Your task to perform on an android device: Search for Mexican restaurants on Maps Image 0: 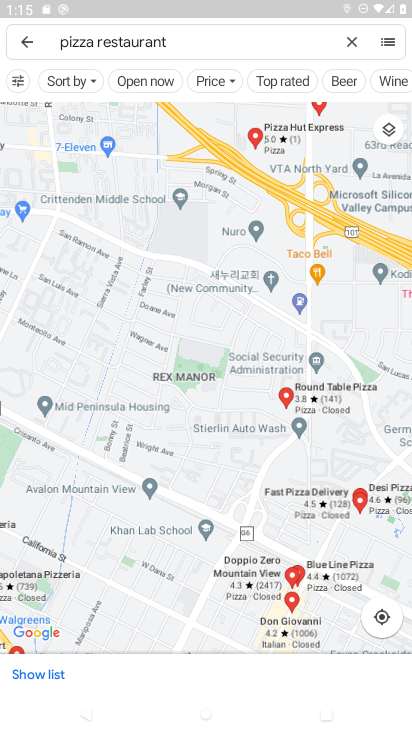
Step 0: click (344, 41)
Your task to perform on an android device: Search for Mexican restaurants on Maps Image 1: 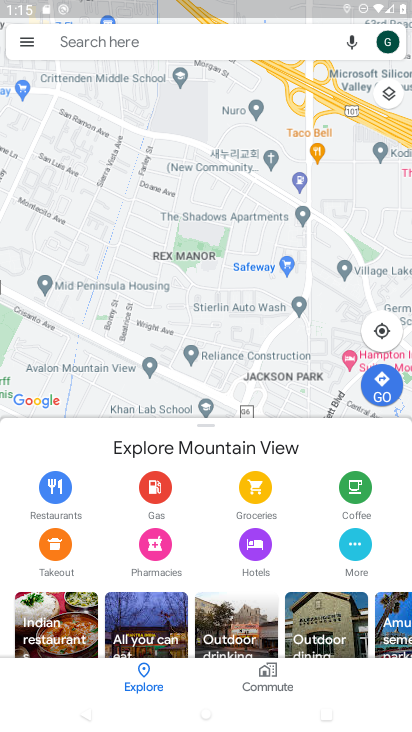
Step 1: type "mexican "
Your task to perform on an android device: Search for Mexican restaurants on Maps Image 2: 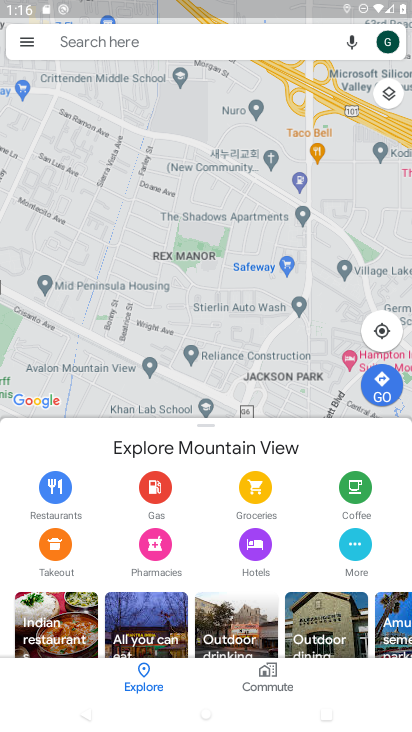
Step 2: click (219, 48)
Your task to perform on an android device: Search for Mexican restaurants on Maps Image 3: 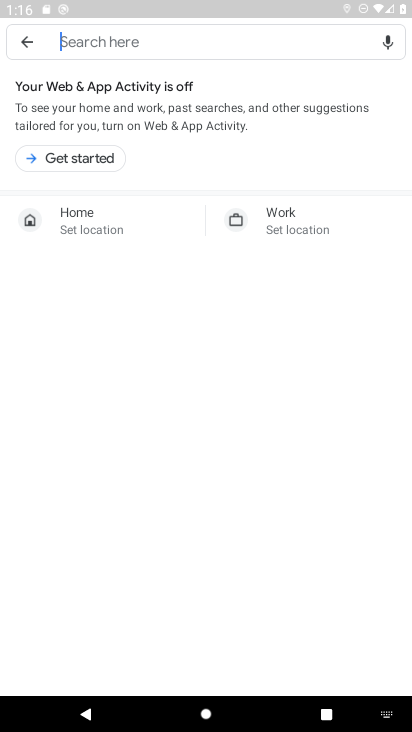
Step 3: type "mexican"
Your task to perform on an android device: Search for Mexican restaurants on Maps Image 4: 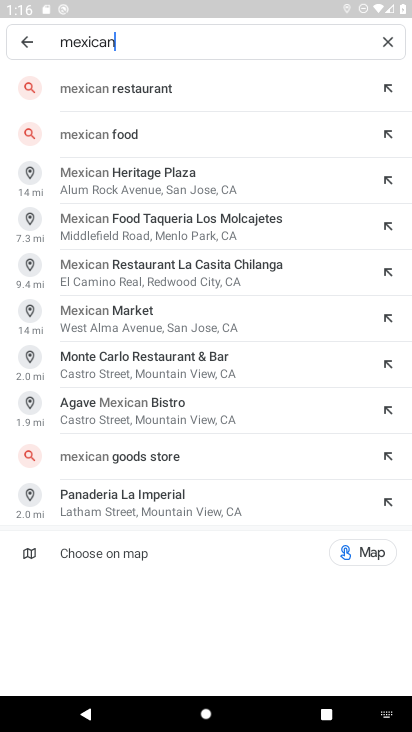
Step 4: click (222, 79)
Your task to perform on an android device: Search for Mexican restaurants on Maps Image 5: 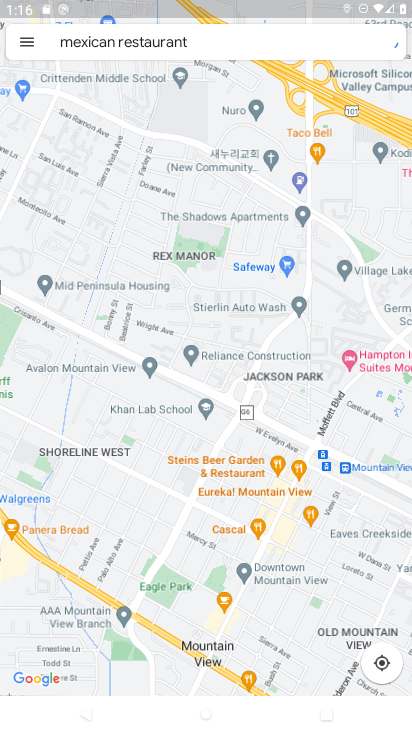
Step 5: task complete